Your task to perform on an android device: Set the phone to "Do not disturb". Image 0: 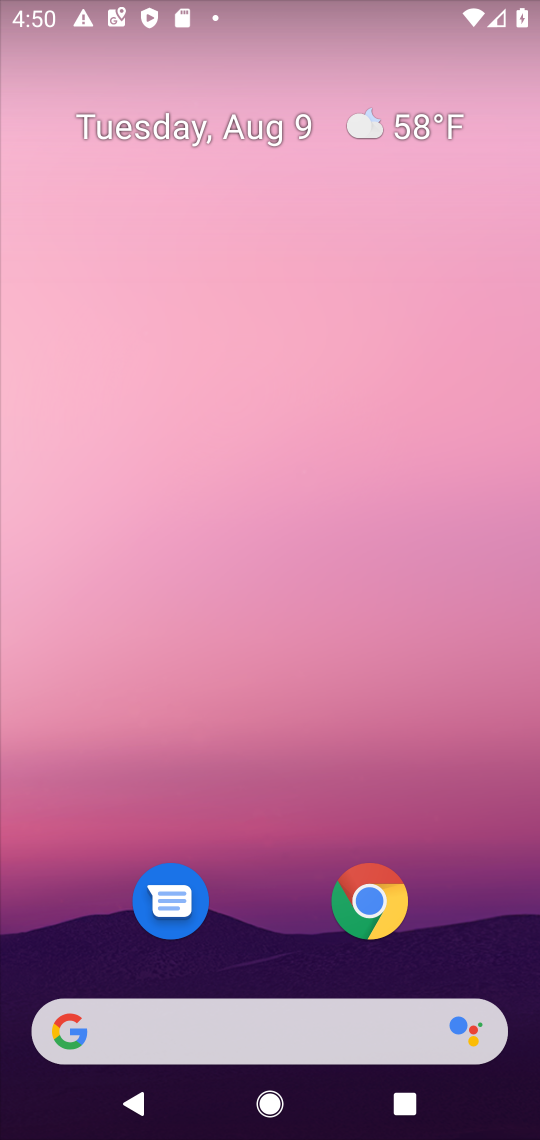
Step 0: press home button
Your task to perform on an android device: Set the phone to "Do not disturb". Image 1: 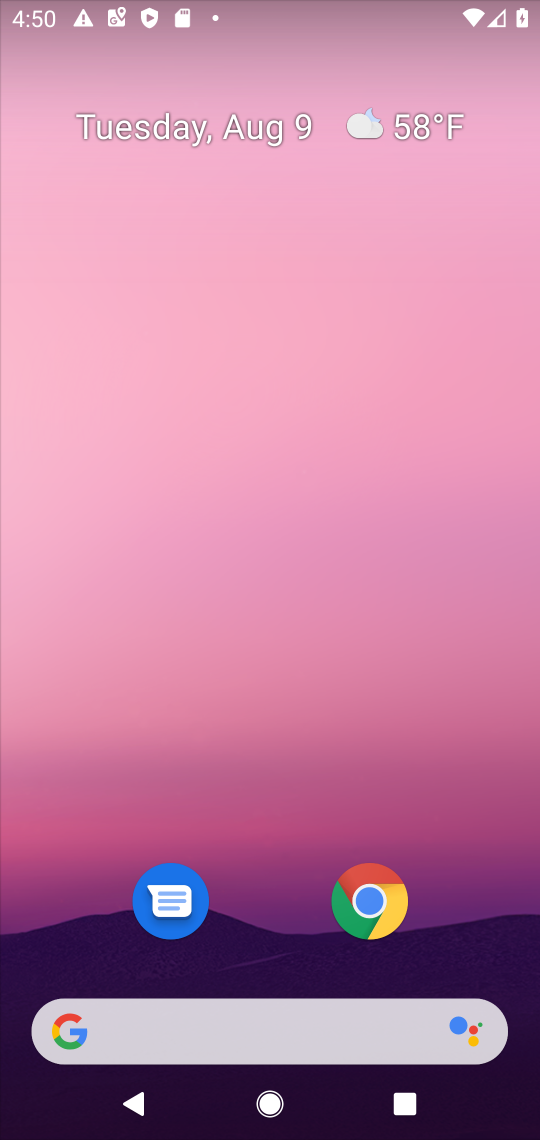
Step 1: press home button
Your task to perform on an android device: Set the phone to "Do not disturb". Image 2: 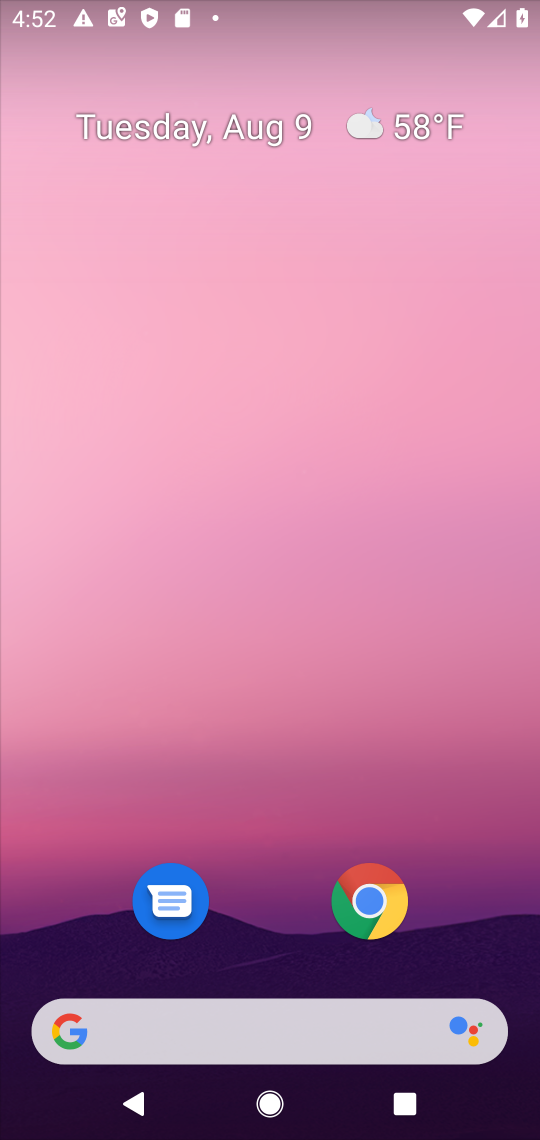
Step 2: drag from (294, 889) to (476, 68)
Your task to perform on an android device: Set the phone to "Do not disturb". Image 3: 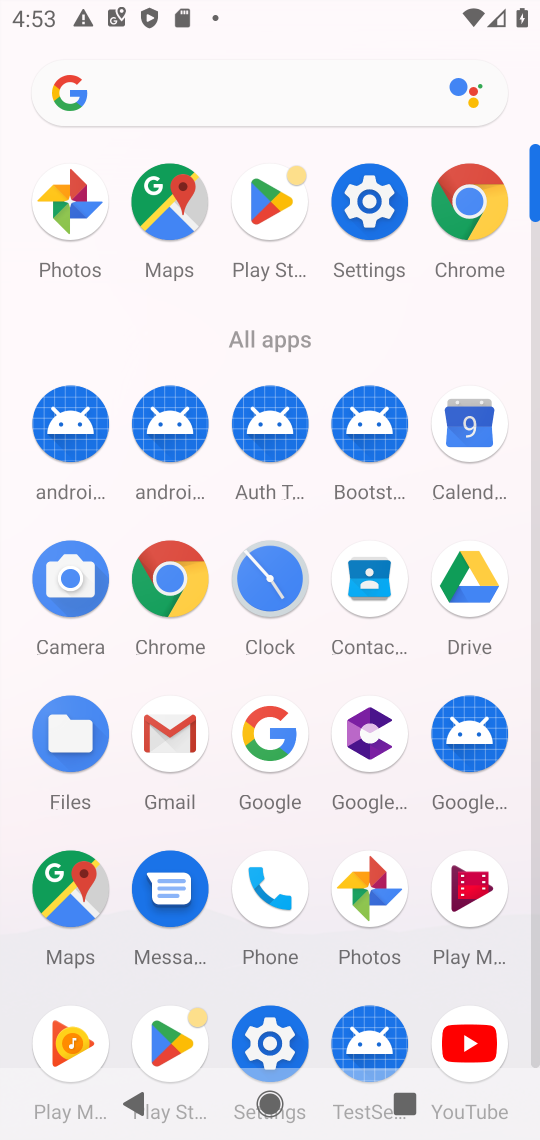
Step 3: drag from (377, 2) to (511, 1124)
Your task to perform on an android device: Set the phone to "Do not disturb". Image 4: 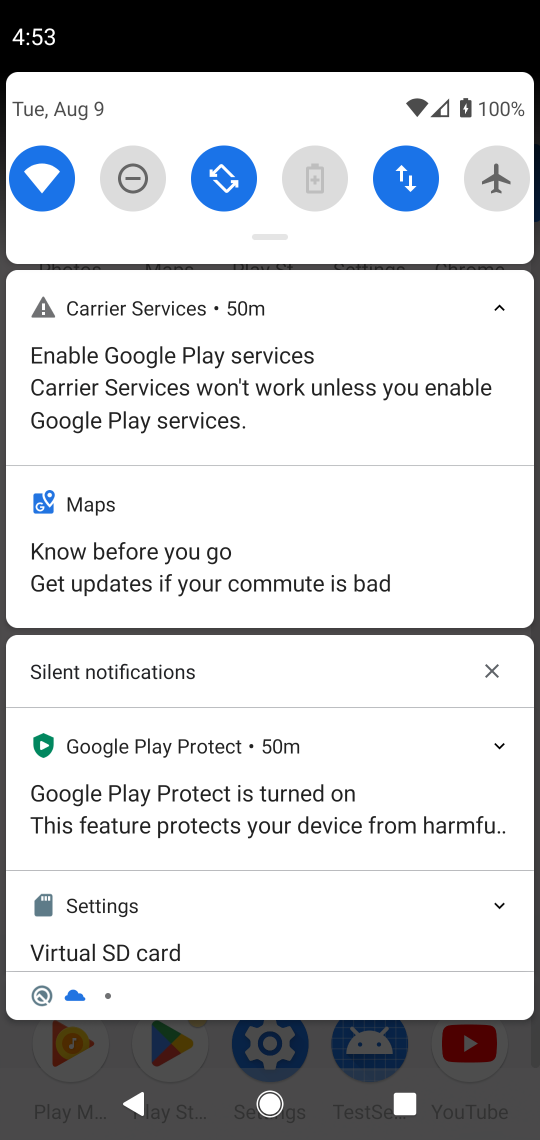
Step 4: click (114, 169)
Your task to perform on an android device: Set the phone to "Do not disturb". Image 5: 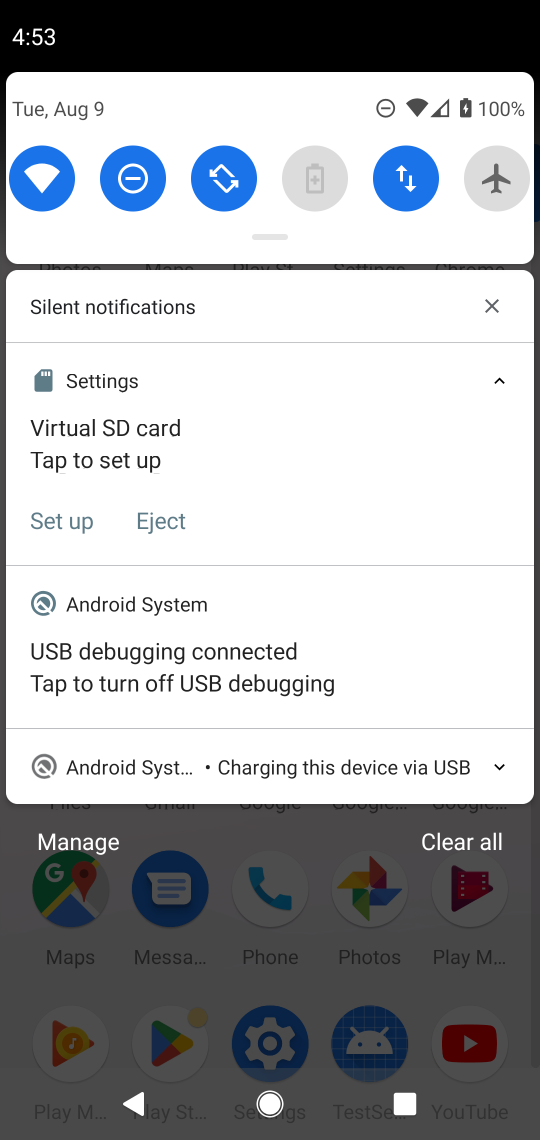
Step 5: task complete